Your task to perform on an android device: Go to Android settings Image 0: 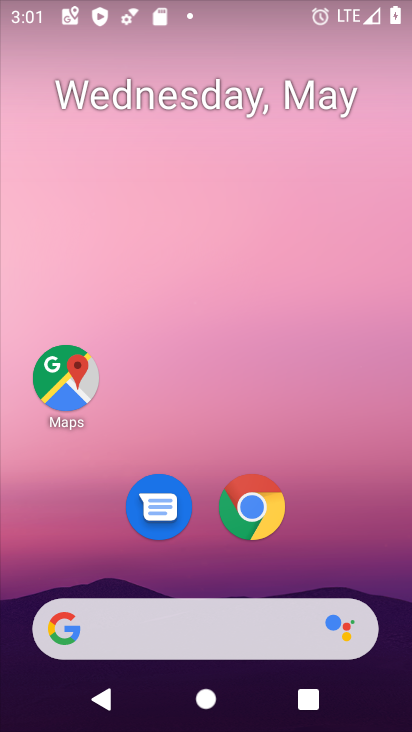
Step 0: drag from (324, 557) to (253, 113)
Your task to perform on an android device: Go to Android settings Image 1: 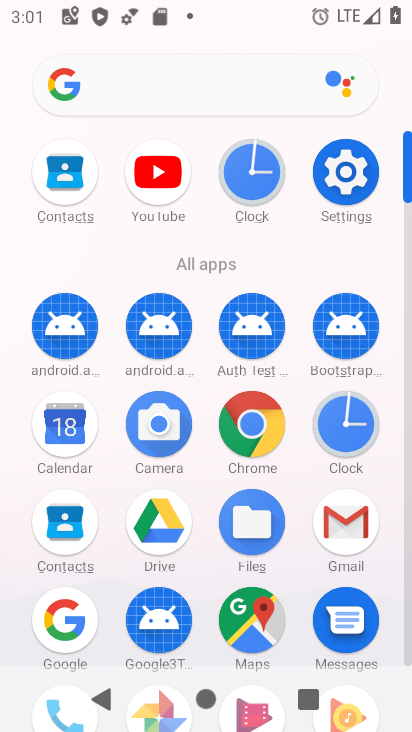
Step 1: click (345, 171)
Your task to perform on an android device: Go to Android settings Image 2: 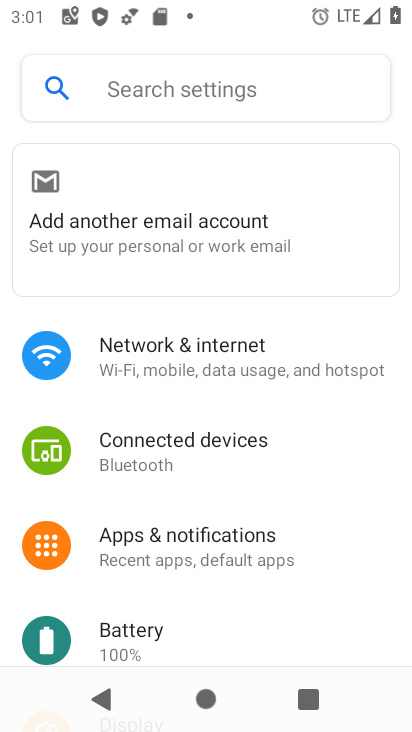
Step 2: task complete